Your task to perform on an android device: Open location settings Image 0: 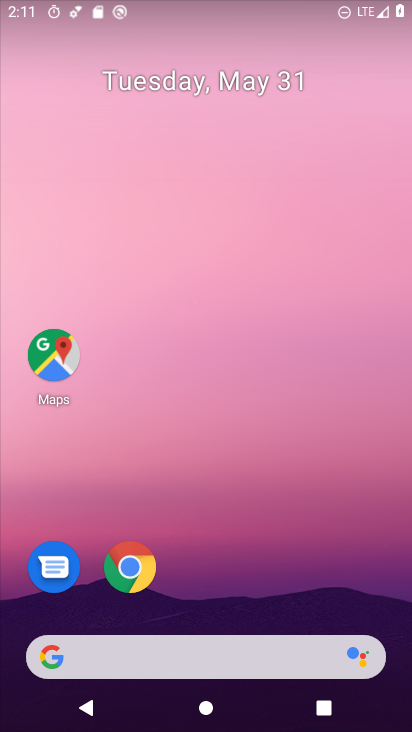
Step 0: drag from (222, 601) to (193, 192)
Your task to perform on an android device: Open location settings Image 1: 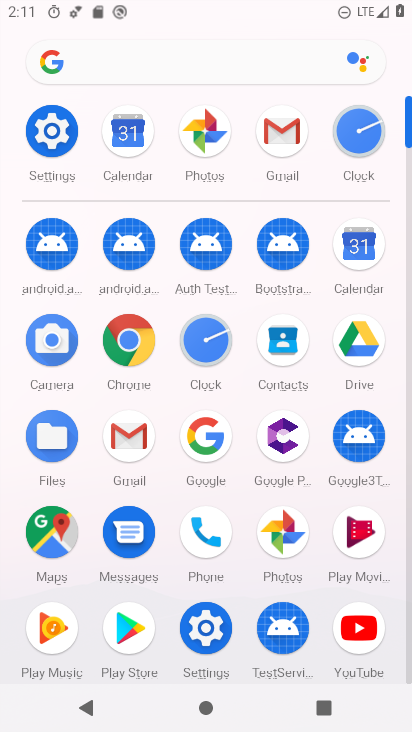
Step 1: click (60, 132)
Your task to perform on an android device: Open location settings Image 2: 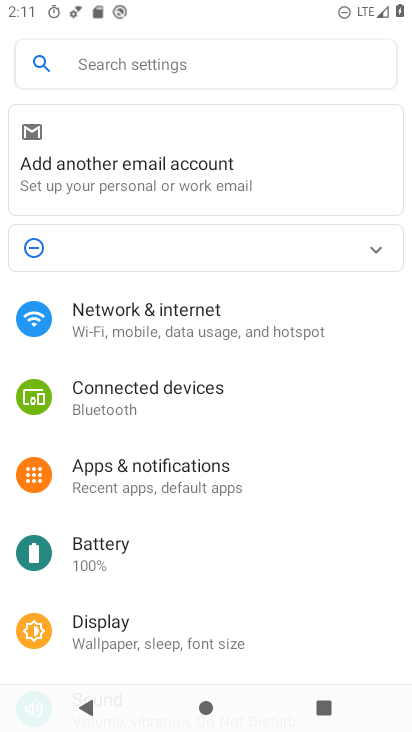
Step 2: drag from (228, 582) to (210, 257)
Your task to perform on an android device: Open location settings Image 3: 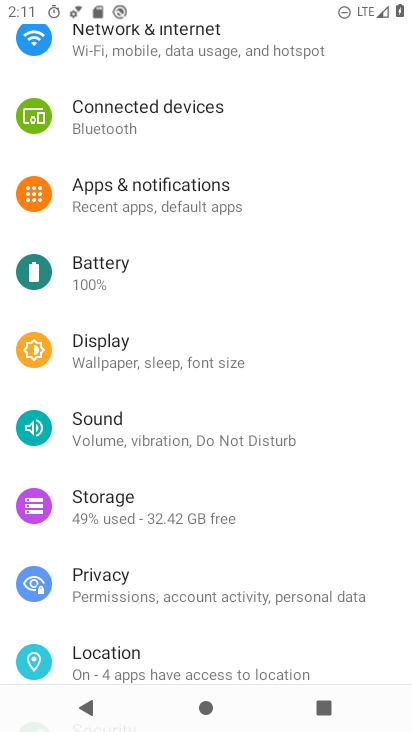
Step 3: drag from (210, 568) to (210, 303)
Your task to perform on an android device: Open location settings Image 4: 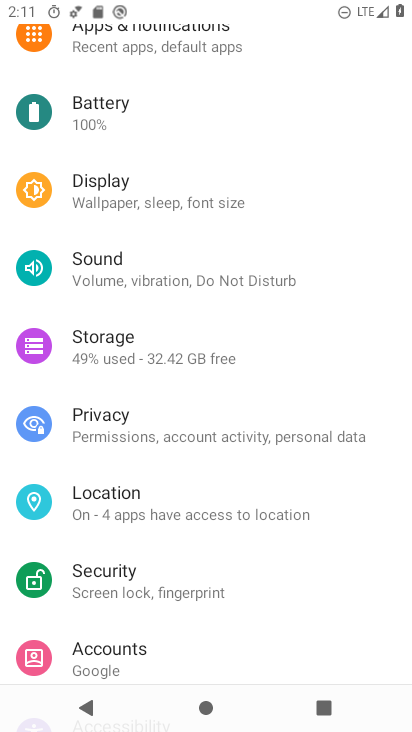
Step 4: click (196, 491)
Your task to perform on an android device: Open location settings Image 5: 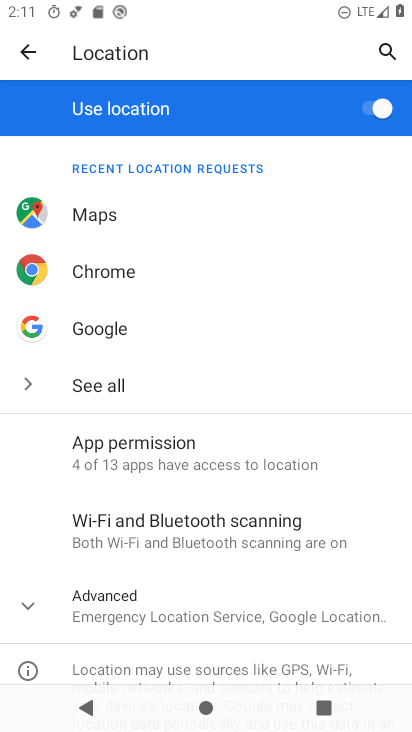
Step 5: task complete